Your task to perform on an android device: Open the Play Movies app and select the watchlist tab. Image 0: 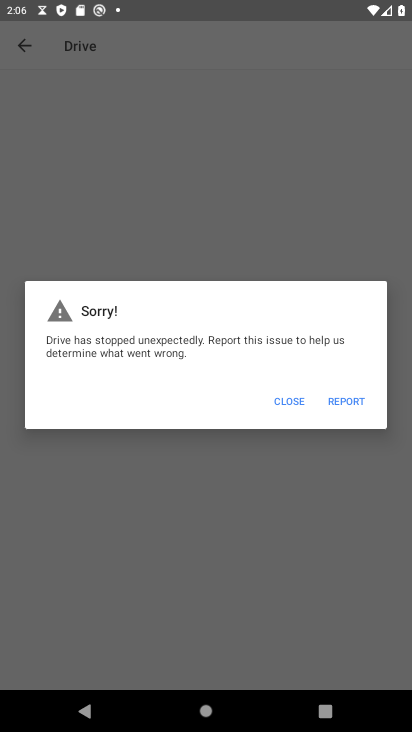
Step 0: press home button
Your task to perform on an android device: Open the Play Movies app and select the watchlist tab. Image 1: 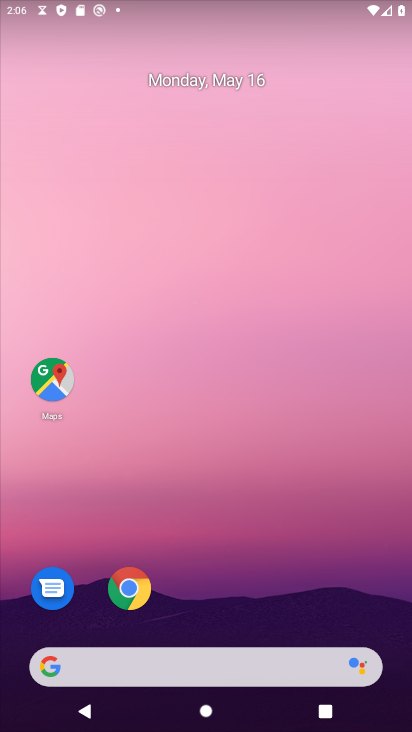
Step 1: drag from (230, 725) to (227, 159)
Your task to perform on an android device: Open the Play Movies app and select the watchlist tab. Image 2: 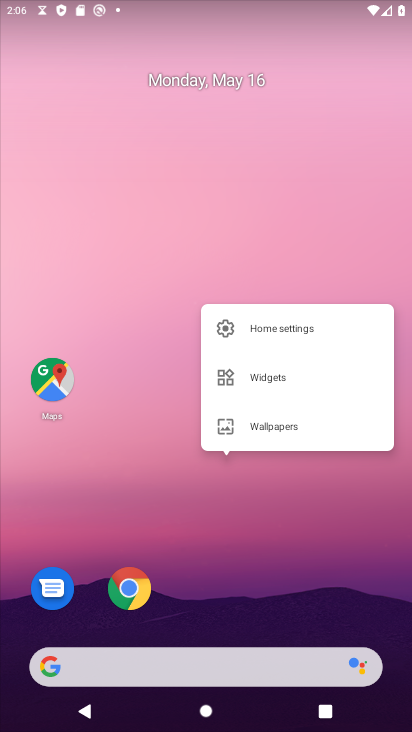
Step 2: click (220, 200)
Your task to perform on an android device: Open the Play Movies app and select the watchlist tab. Image 3: 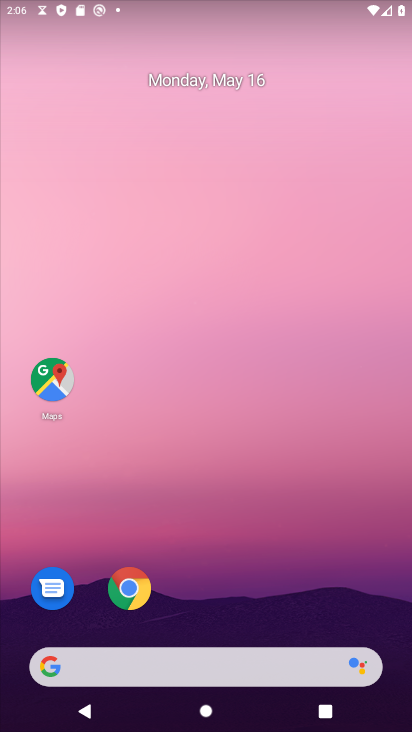
Step 3: drag from (228, 723) to (229, 131)
Your task to perform on an android device: Open the Play Movies app and select the watchlist tab. Image 4: 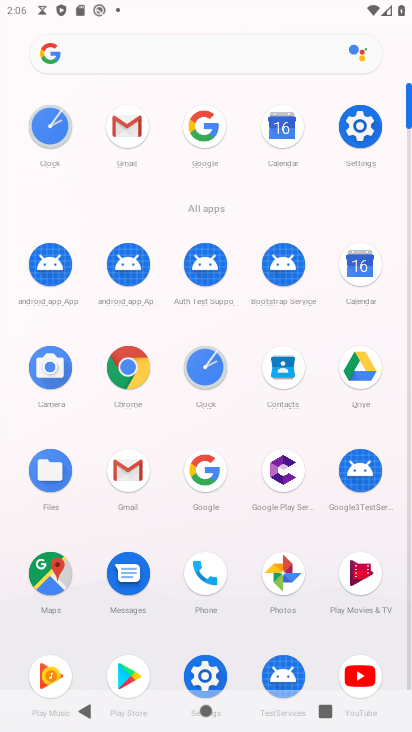
Step 4: click (366, 578)
Your task to perform on an android device: Open the Play Movies app and select the watchlist tab. Image 5: 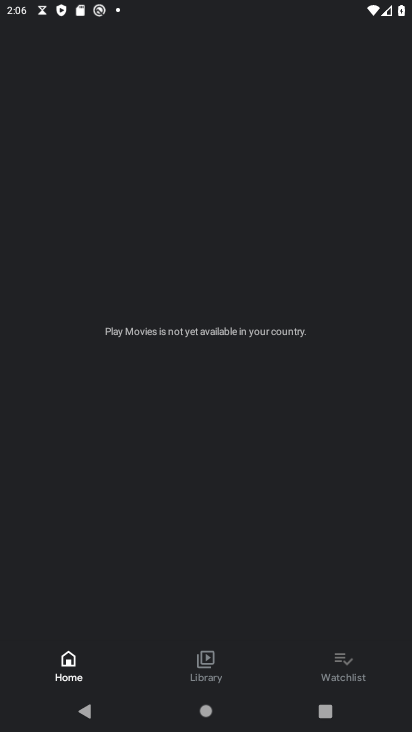
Step 5: click (337, 662)
Your task to perform on an android device: Open the Play Movies app and select the watchlist tab. Image 6: 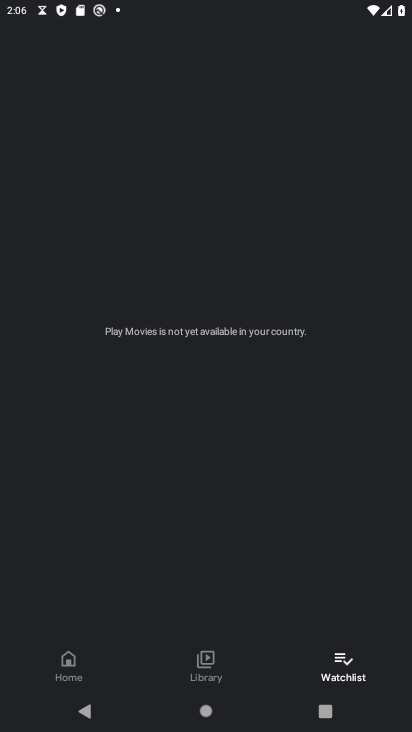
Step 6: task complete